Your task to perform on an android device: search for starred emails in the gmail app Image 0: 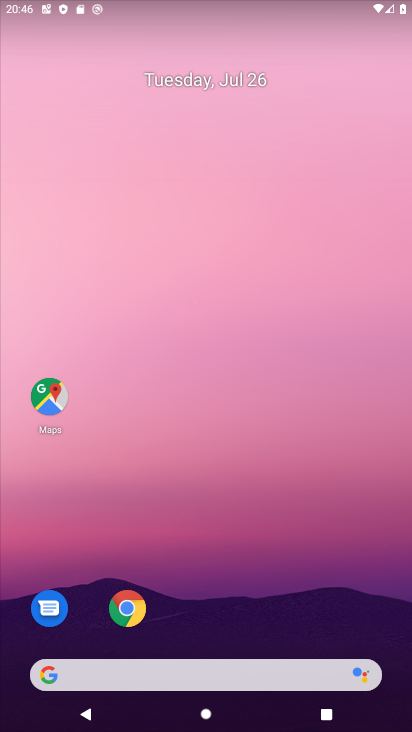
Step 0: drag from (70, 517) to (388, 6)
Your task to perform on an android device: search for starred emails in the gmail app Image 1: 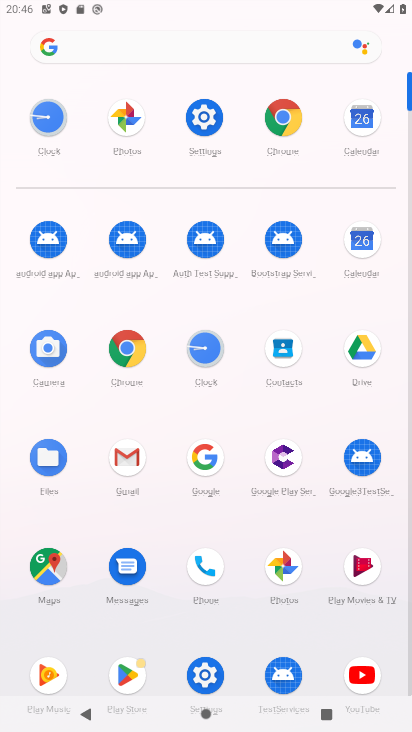
Step 1: click (133, 453)
Your task to perform on an android device: search for starred emails in the gmail app Image 2: 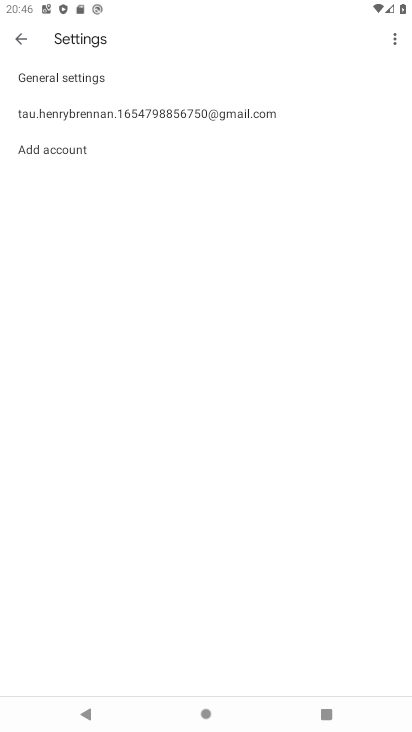
Step 2: click (25, 39)
Your task to perform on an android device: search for starred emails in the gmail app Image 3: 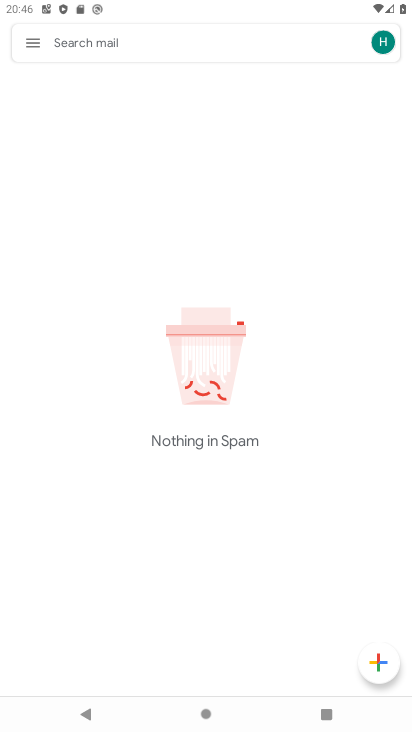
Step 3: click (33, 42)
Your task to perform on an android device: search for starred emails in the gmail app Image 4: 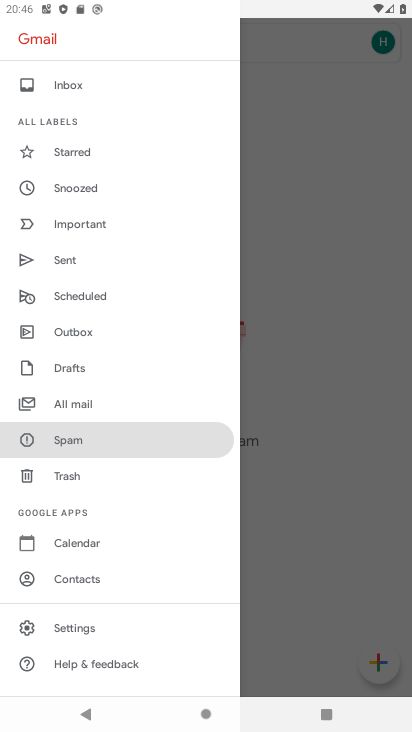
Step 4: click (58, 146)
Your task to perform on an android device: search for starred emails in the gmail app Image 5: 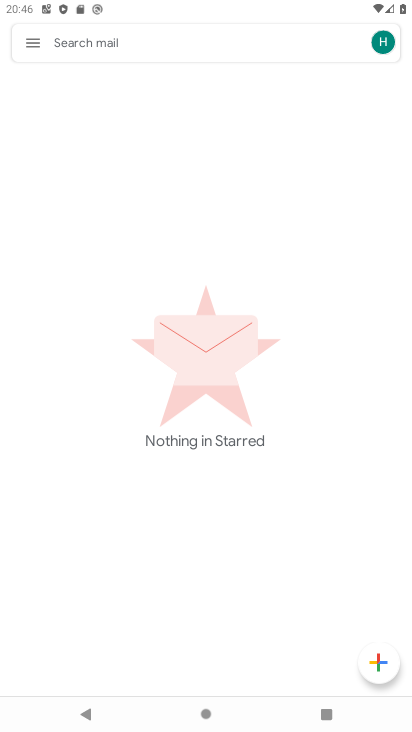
Step 5: task complete